Your task to perform on an android device: Go to network settings Image 0: 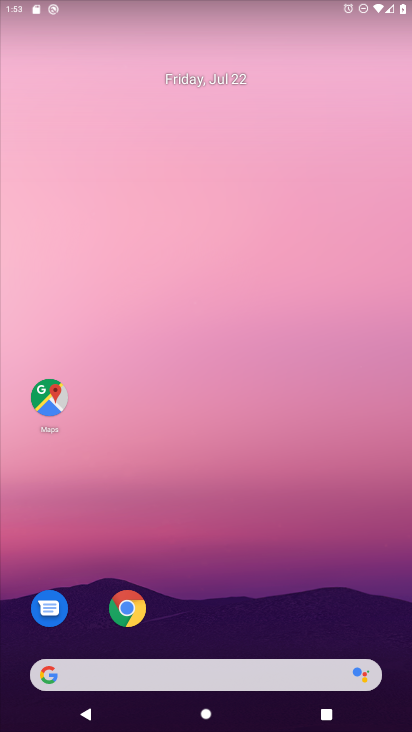
Step 0: drag from (351, 614) to (126, 39)
Your task to perform on an android device: Go to network settings Image 1: 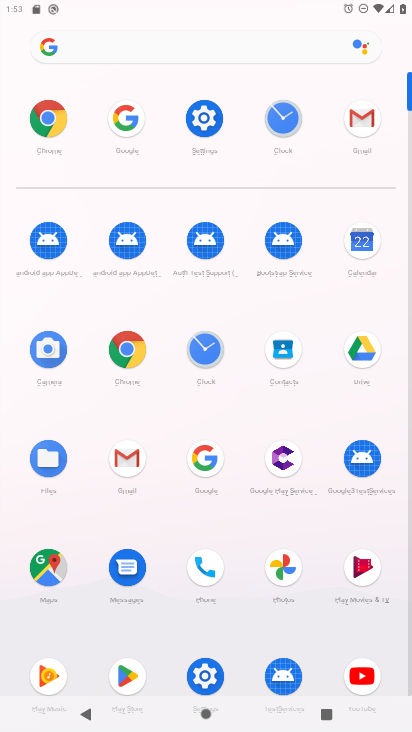
Step 1: click (208, 677)
Your task to perform on an android device: Go to network settings Image 2: 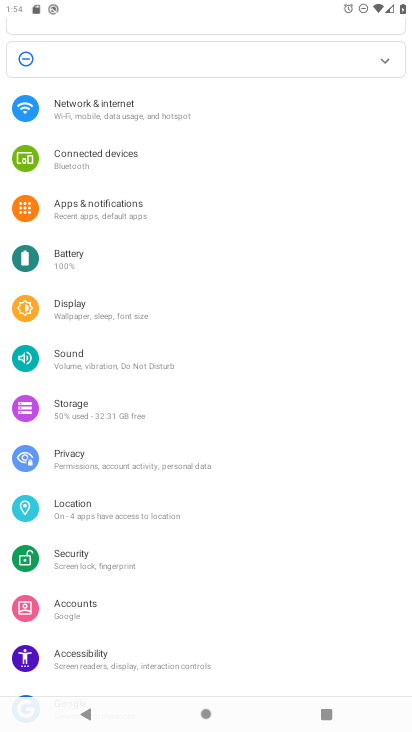
Step 2: click (99, 109)
Your task to perform on an android device: Go to network settings Image 3: 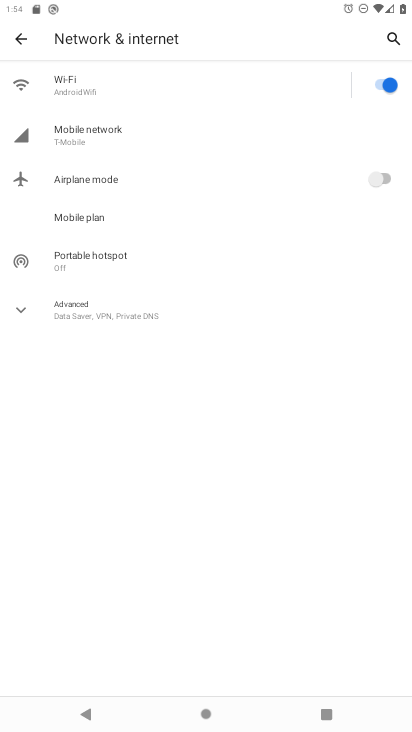
Step 3: task complete